Your task to perform on an android device: turn off data saver in the chrome app Image 0: 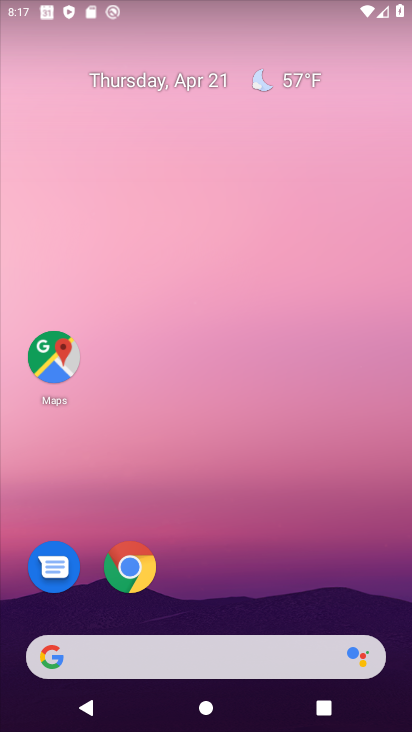
Step 0: click (127, 566)
Your task to perform on an android device: turn off data saver in the chrome app Image 1: 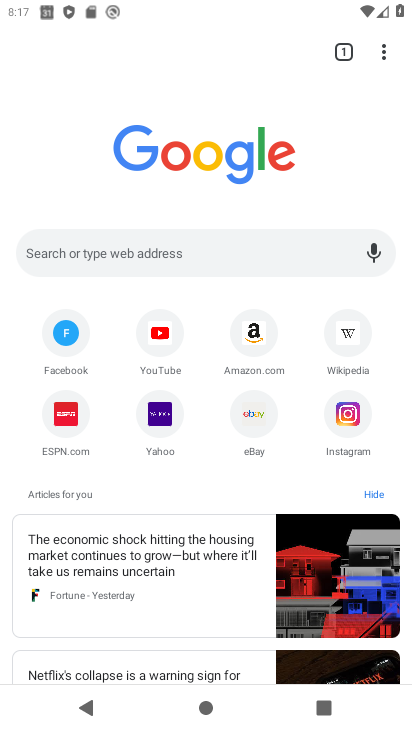
Step 1: drag from (382, 41) to (230, 432)
Your task to perform on an android device: turn off data saver in the chrome app Image 2: 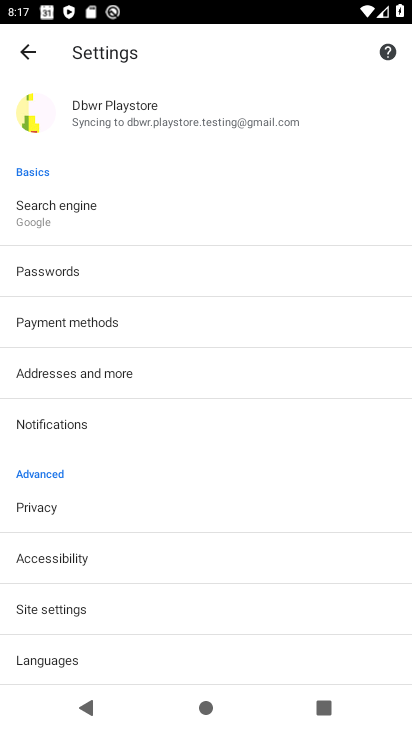
Step 2: drag from (100, 594) to (57, 652)
Your task to perform on an android device: turn off data saver in the chrome app Image 3: 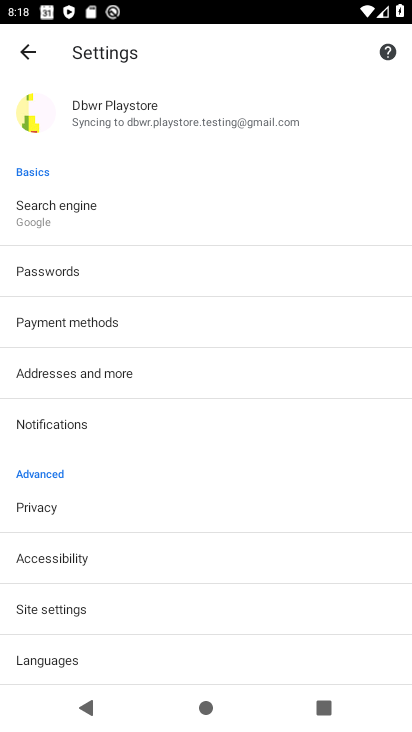
Step 3: drag from (102, 610) to (85, 247)
Your task to perform on an android device: turn off data saver in the chrome app Image 4: 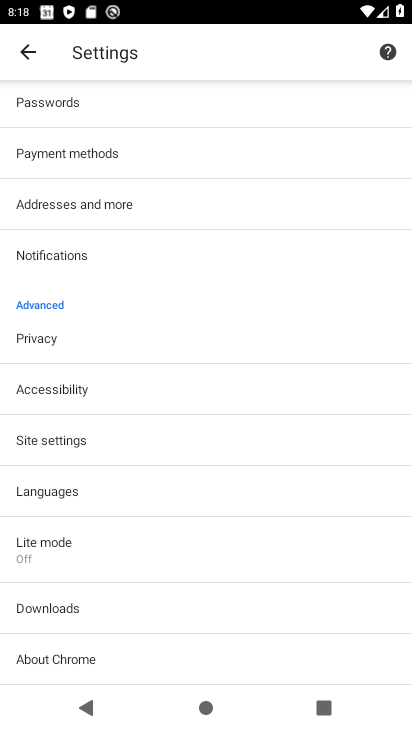
Step 4: click (45, 544)
Your task to perform on an android device: turn off data saver in the chrome app Image 5: 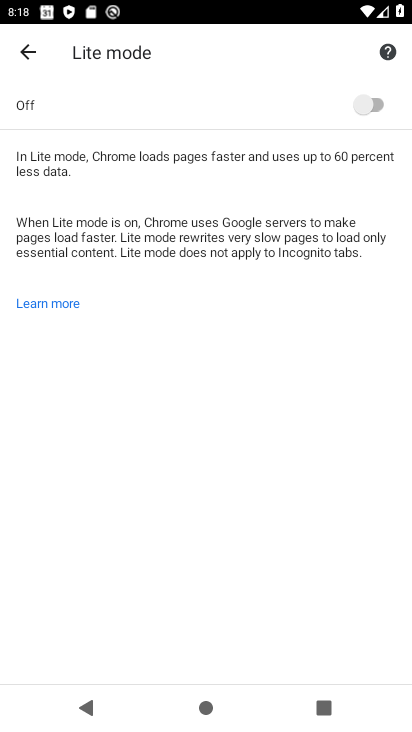
Step 5: task complete